Your task to perform on an android device: Open Google Maps Image 0: 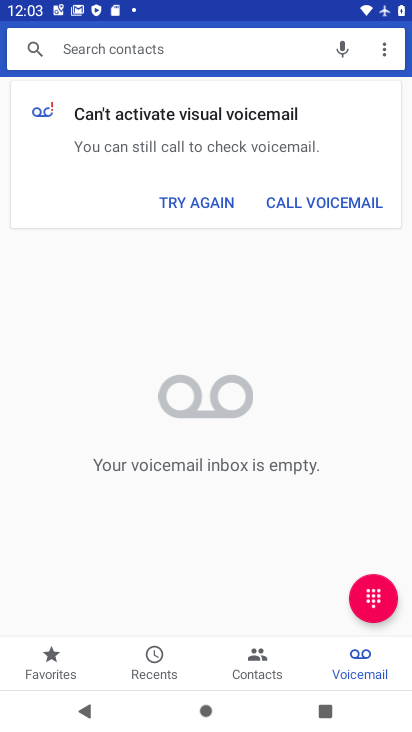
Step 0: press home button
Your task to perform on an android device: Open Google Maps Image 1: 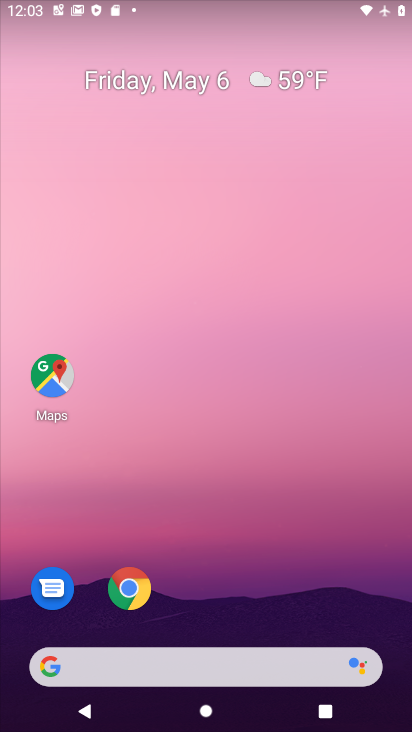
Step 1: drag from (237, 678) to (365, 250)
Your task to perform on an android device: Open Google Maps Image 2: 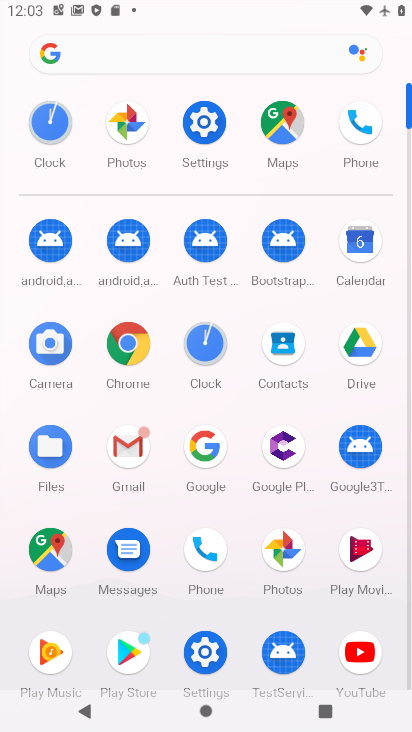
Step 2: click (290, 131)
Your task to perform on an android device: Open Google Maps Image 3: 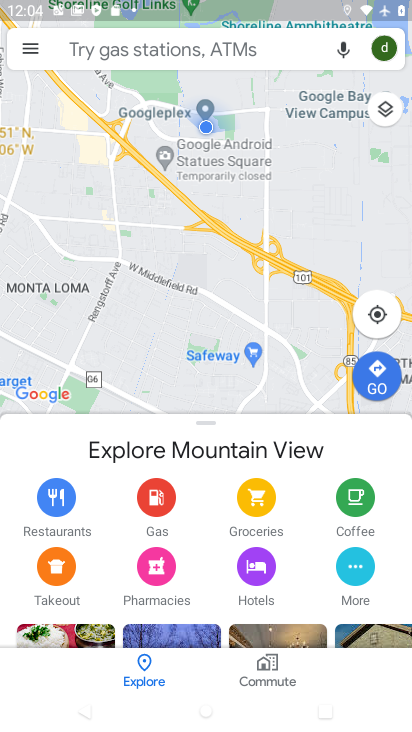
Step 3: task complete